Your task to perform on an android device: Show me productivity apps on the Play Store Image 0: 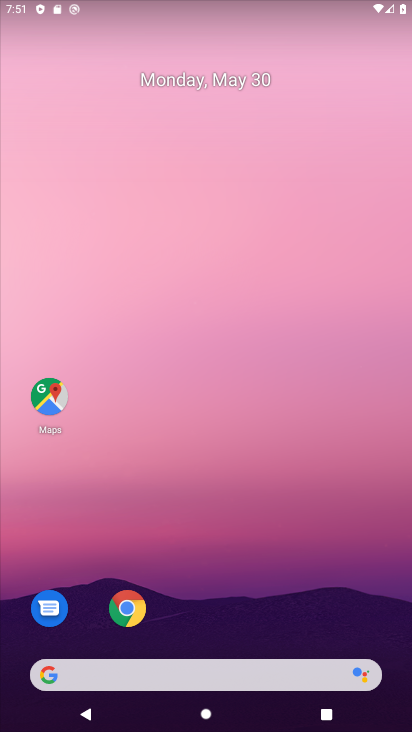
Step 0: drag from (238, 724) to (240, 625)
Your task to perform on an android device: Show me productivity apps on the Play Store Image 1: 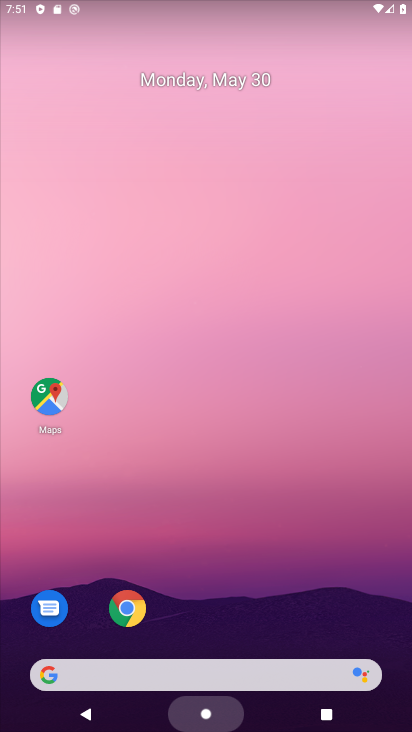
Step 1: drag from (240, 245) to (209, 91)
Your task to perform on an android device: Show me productivity apps on the Play Store Image 2: 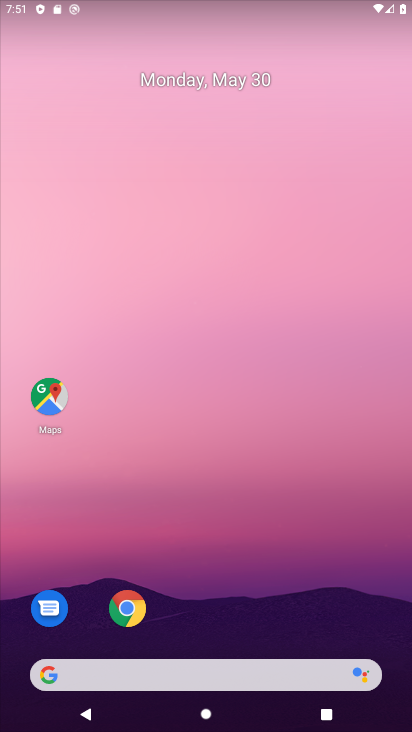
Step 2: drag from (238, 722) to (249, 276)
Your task to perform on an android device: Show me productivity apps on the Play Store Image 3: 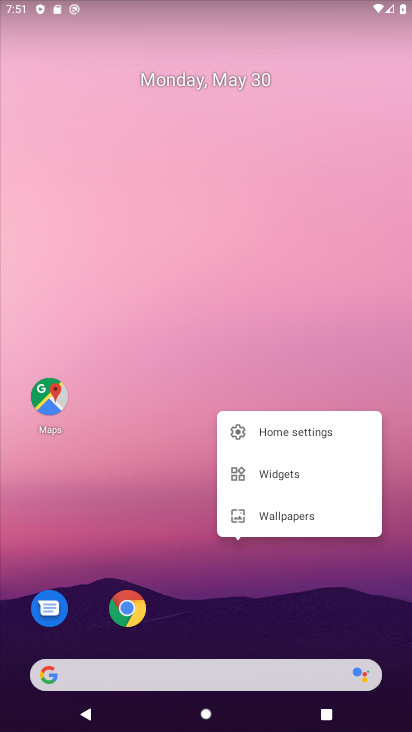
Step 3: click (244, 274)
Your task to perform on an android device: Show me productivity apps on the Play Store Image 4: 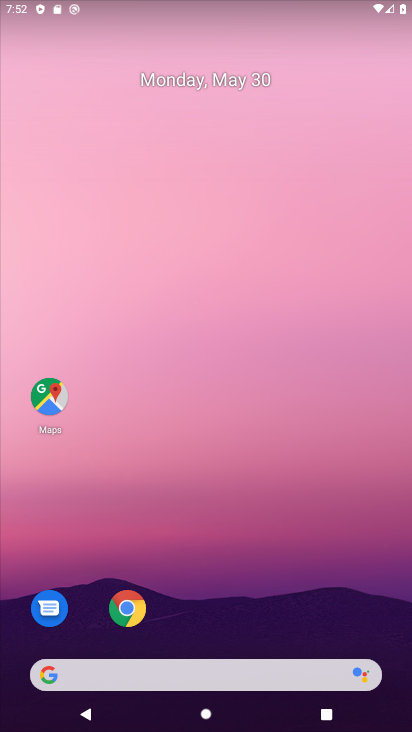
Step 4: drag from (221, 722) to (255, 412)
Your task to perform on an android device: Show me productivity apps on the Play Store Image 5: 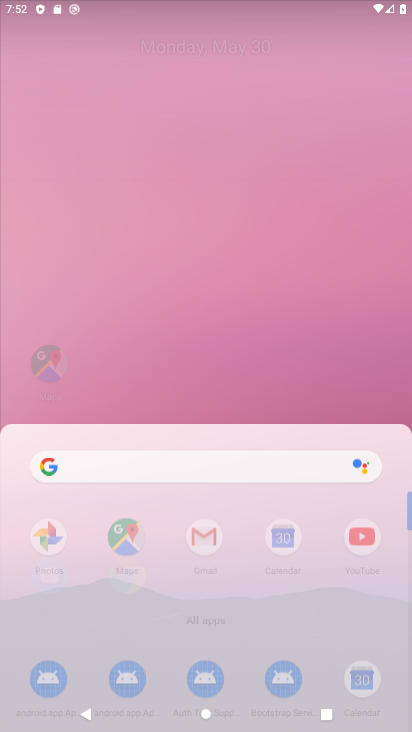
Step 5: click (252, 248)
Your task to perform on an android device: Show me productivity apps on the Play Store Image 6: 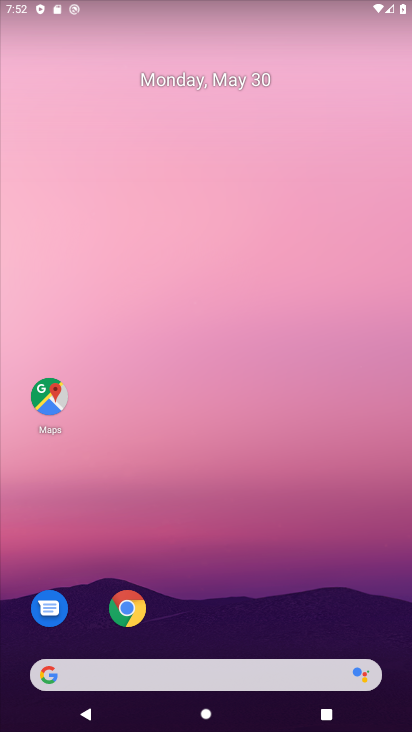
Step 6: drag from (224, 726) to (237, 72)
Your task to perform on an android device: Show me productivity apps on the Play Store Image 7: 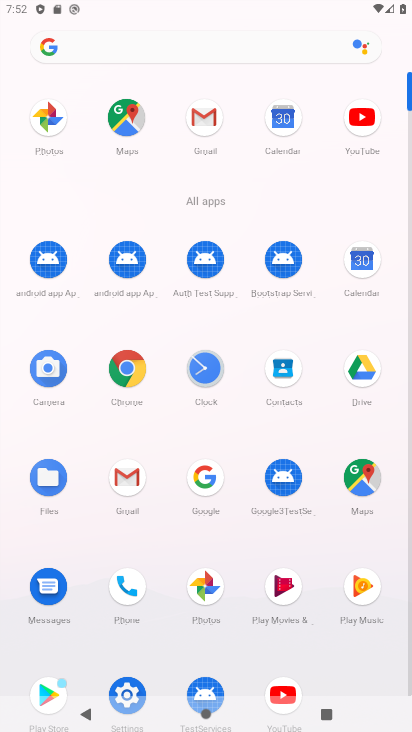
Step 7: click (50, 693)
Your task to perform on an android device: Show me productivity apps on the Play Store Image 8: 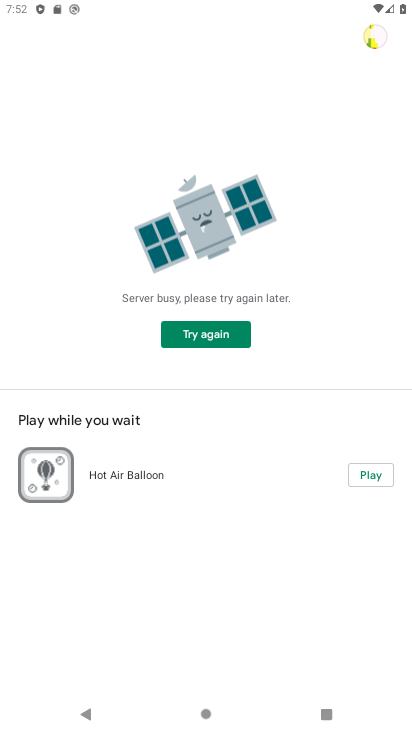
Step 8: task complete